Your task to perform on an android device: What's the weather? Image 0: 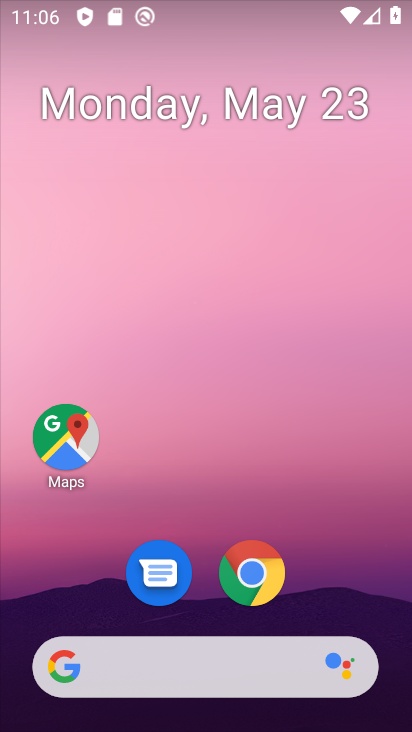
Step 0: click (192, 666)
Your task to perform on an android device: What's the weather? Image 1: 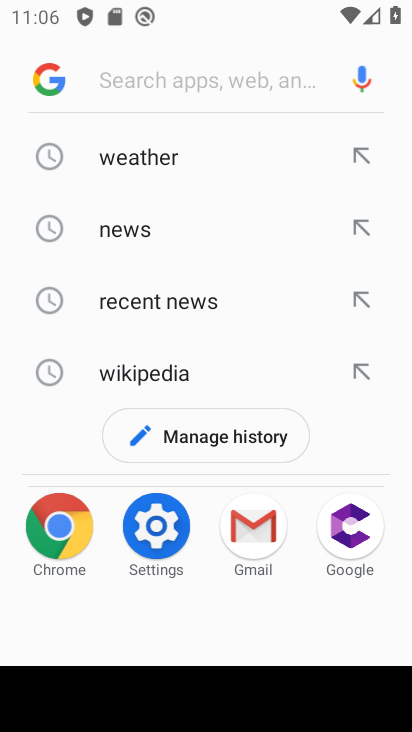
Step 1: click (166, 162)
Your task to perform on an android device: What's the weather? Image 2: 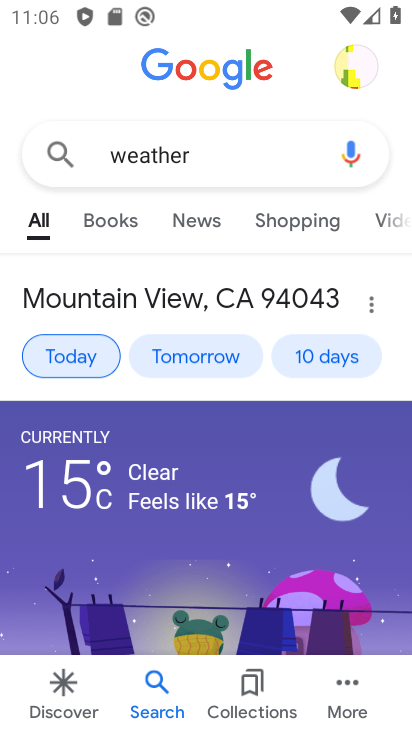
Step 2: task complete